Your task to perform on an android device: turn off airplane mode Image 0: 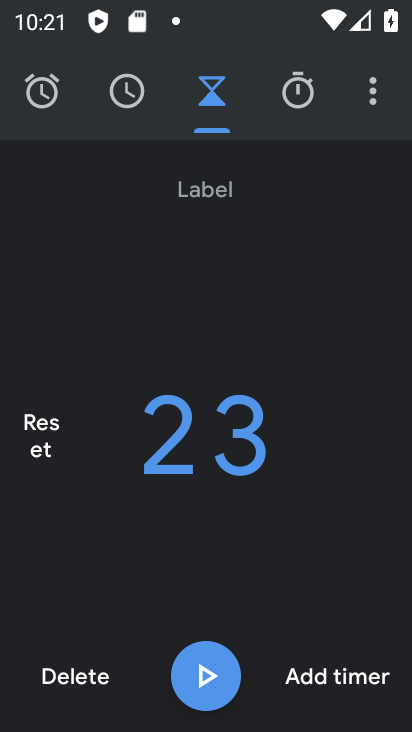
Step 0: press home button
Your task to perform on an android device: turn off airplane mode Image 1: 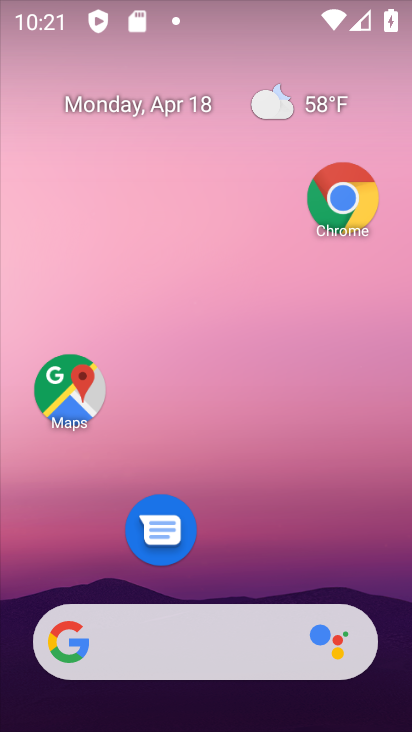
Step 1: drag from (195, 584) to (215, 218)
Your task to perform on an android device: turn off airplane mode Image 2: 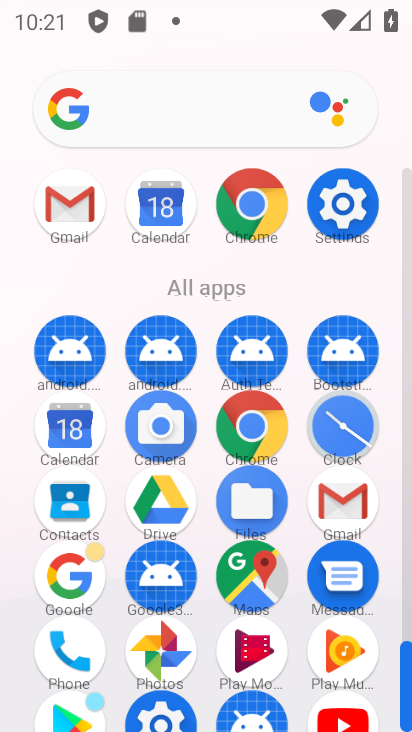
Step 2: click (341, 195)
Your task to perform on an android device: turn off airplane mode Image 3: 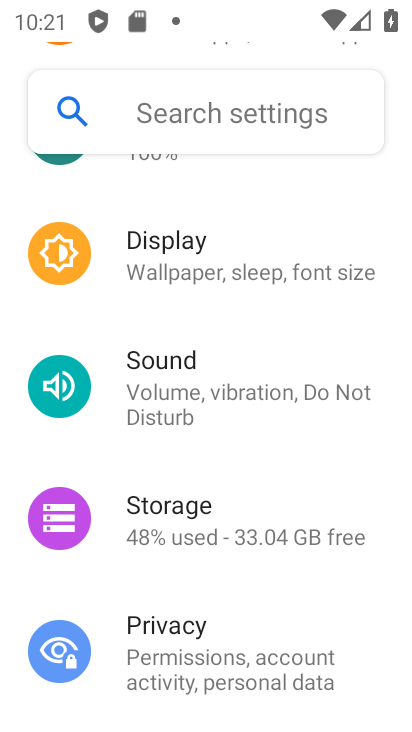
Step 3: drag from (214, 225) to (224, 620)
Your task to perform on an android device: turn off airplane mode Image 4: 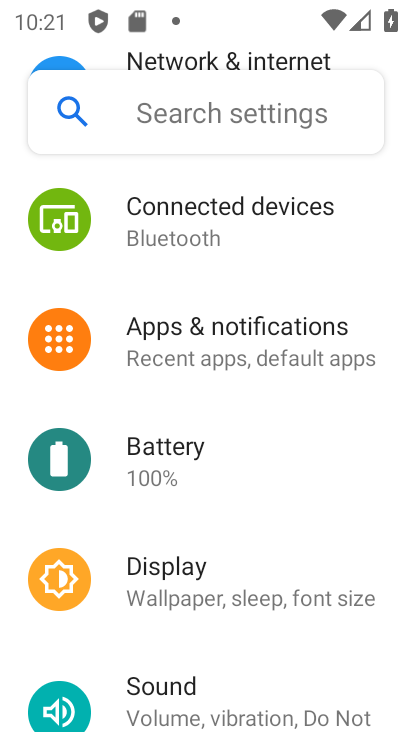
Step 4: drag from (251, 210) to (243, 567)
Your task to perform on an android device: turn off airplane mode Image 5: 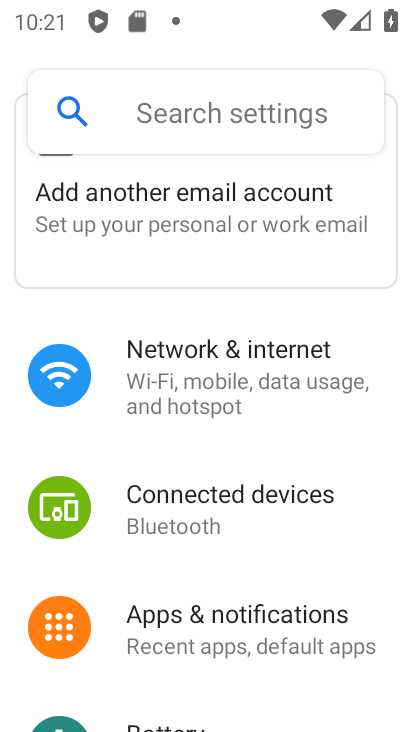
Step 5: drag from (189, 300) to (190, 541)
Your task to perform on an android device: turn off airplane mode Image 6: 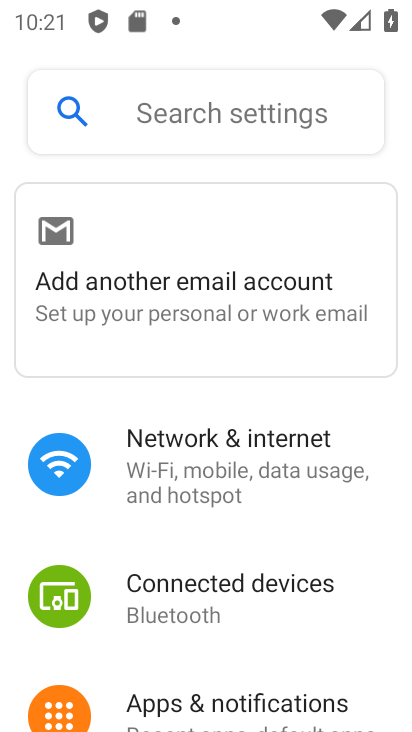
Step 6: click (246, 463)
Your task to perform on an android device: turn off airplane mode Image 7: 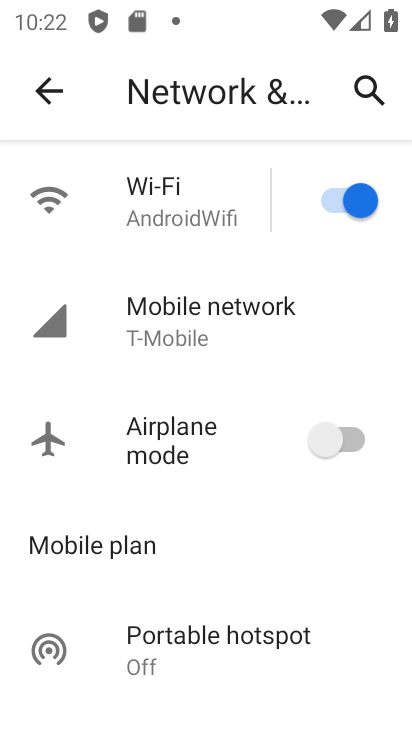
Step 7: task complete